Your task to perform on an android device: Add "razer naga" to the cart on bestbuy.com Image 0: 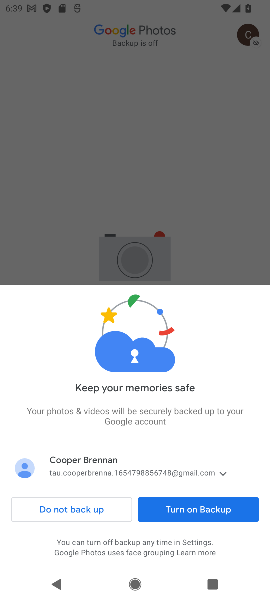
Step 0: press home button
Your task to perform on an android device: Add "razer naga" to the cart on bestbuy.com Image 1: 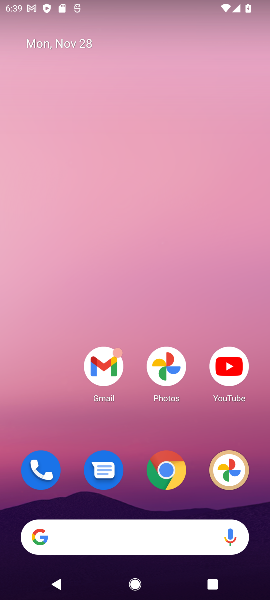
Step 1: click (133, 537)
Your task to perform on an android device: Add "razer naga" to the cart on bestbuy.com Image 2: 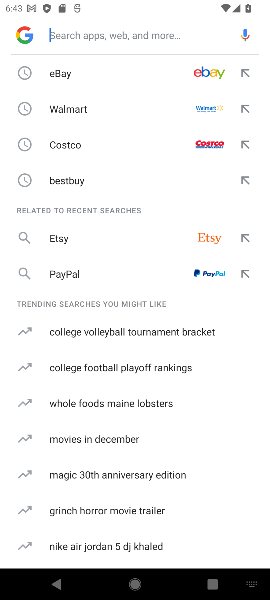
Step 2: drag from (21, 437) to (57, 554)
Your task to perform on an android device: Add "razer naga" to the cart on bestbuy.com Image 3: 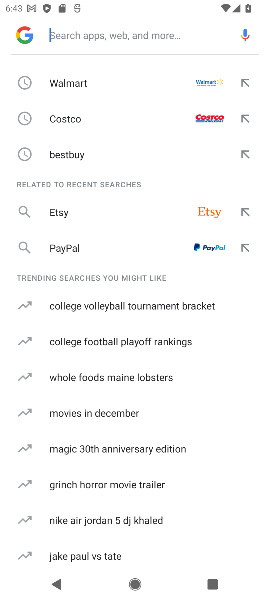
Step 3: click (65, 155)
Your task to perform on an android device: Add "razer naga" to the cart on bestbuy.com Image 4: 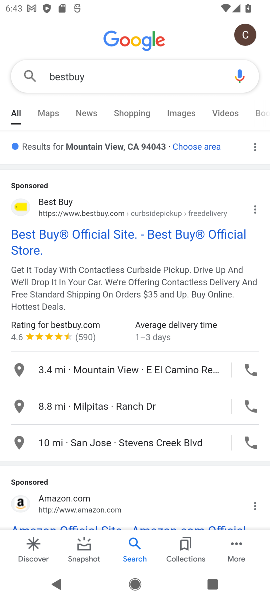
Step 4: click (48, 210)
Your task to perform on an android device: Add "razer naga" to the cart on bestbuy.com Image 5: 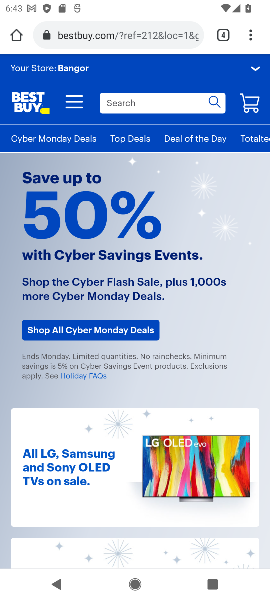
Step 5: click (168, 101)
Your task to perform on an android device: Add "razer naga" to the cart on bestbuy.com Image 6: 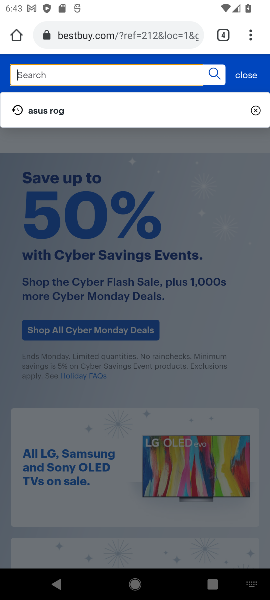
Step 6: type "razer naga"
Your task to perform on an android device: Add "razer naga" to the cart on bestbuy.com Image 7: 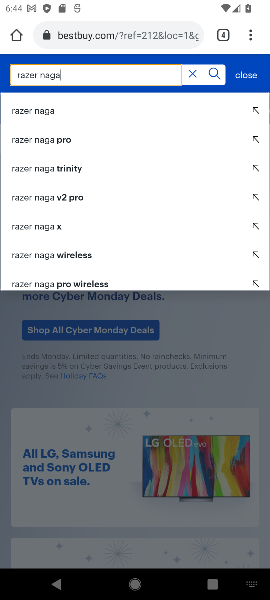
Step 7: click (214, 76)
Your task to perform on an android device: Add "razer naga" to the cart on bestbuy.com Image 8: 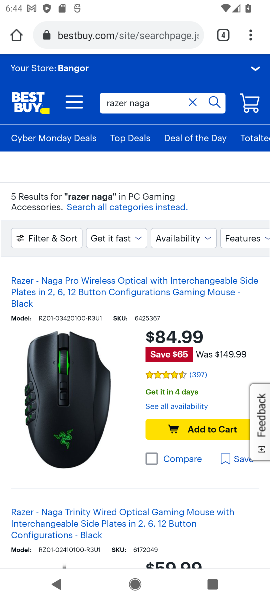
Step 8: click (192, 434)
Your task to perform on an android device: Add "razer naga" to the cart on bestbuy.com Image 9: 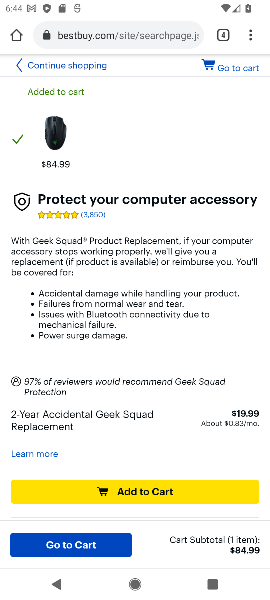
Step 9: task complete